Your task to perform on an android device: Open Google Maps Image 0: 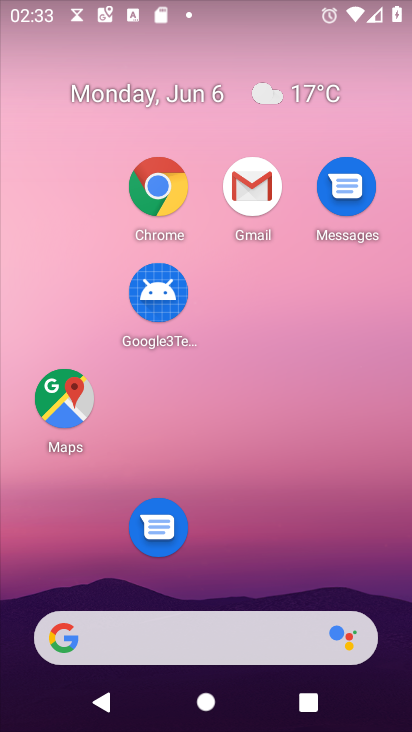
Step 0: click (69, 419)
Your task to perform on an android device: Open Google Maps Image 1: 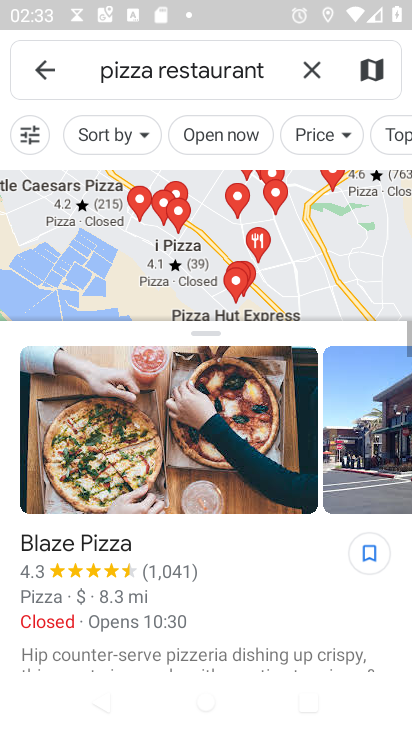
Step 1: task complete